Your task to perform on an android device: turn off translation in the chrome app Image 0: 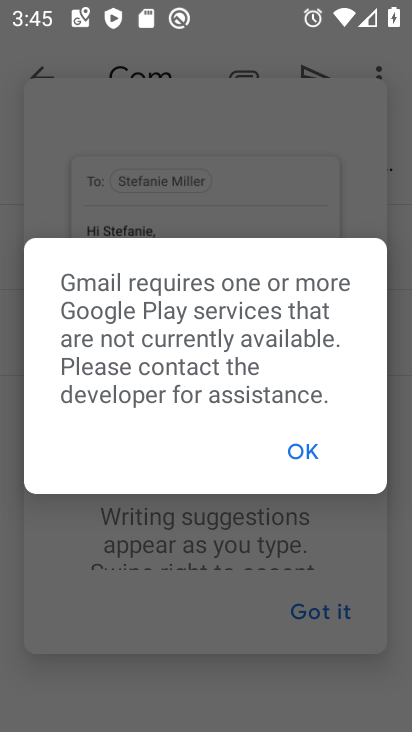
Step 0: press home button
Your task to perform on an android device: turn off translation in the chrome app Image 1: 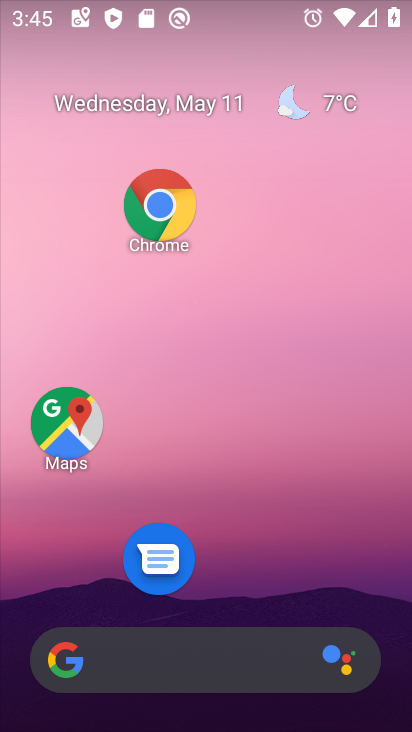
Step 1: click (169, 203)
Your task to perform on an android device: turn off translation in the chrome app Image 2: 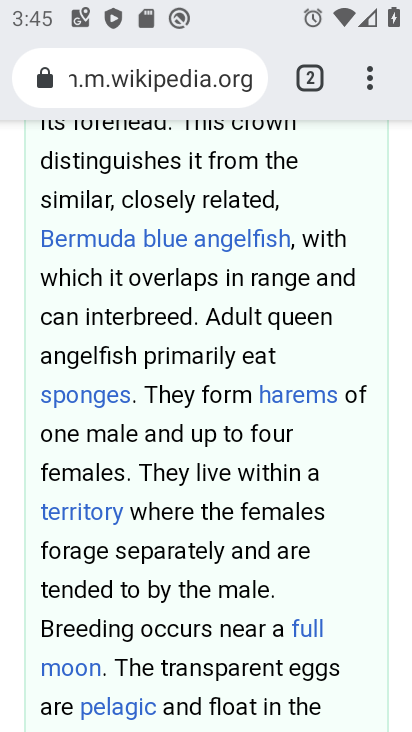
Step 2: click (375, 84)
Your task to perform on an android device: turn off translation in the chrome app Image 3: 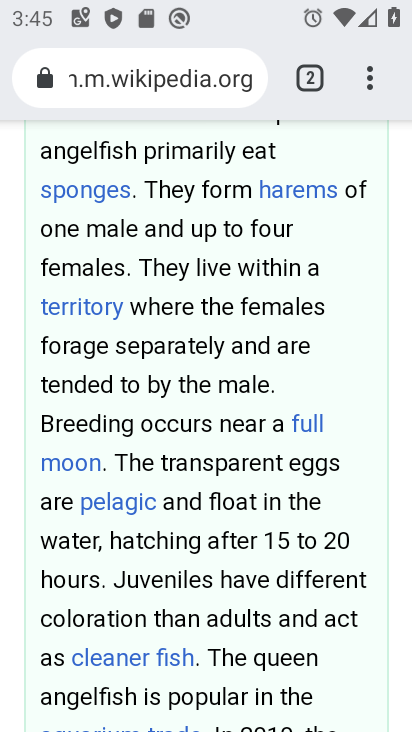
Step 3: click (370, 73)
Your task to perform on an android device: turn off translation in the chrome app Image 4: 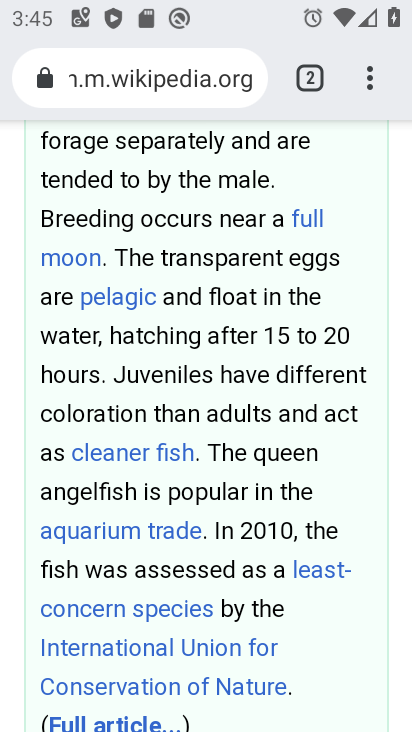
Step 4: click (370, 73)
Your task to perform on an android device: turn off translation in the chrome app Image 5: 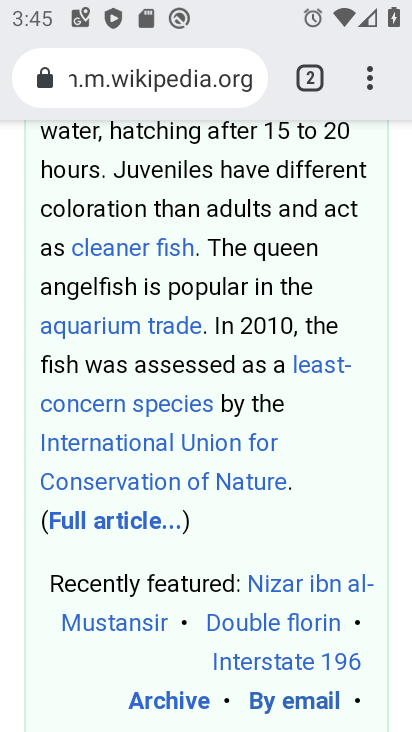
Step 5: click (370, 85)
Your task to perform on an android device: turn off translation in the chrome app Image 6: 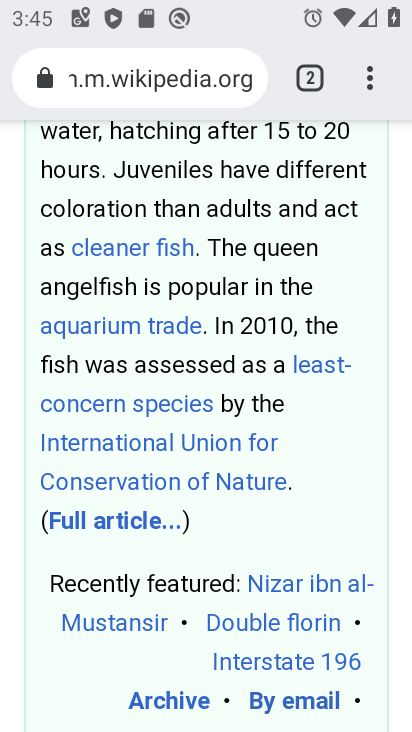
Step 6: click (370, 85)
Your task to perform on an android device: turn off translation in the chrome app Image 7: 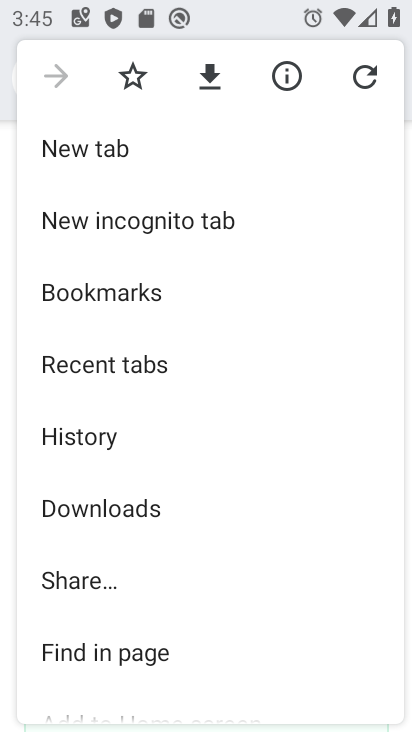
Step 7: drag from (183, 704) to (170, 328)
Your task to perform on an android device: turn off translation in the chrome app Image 8: 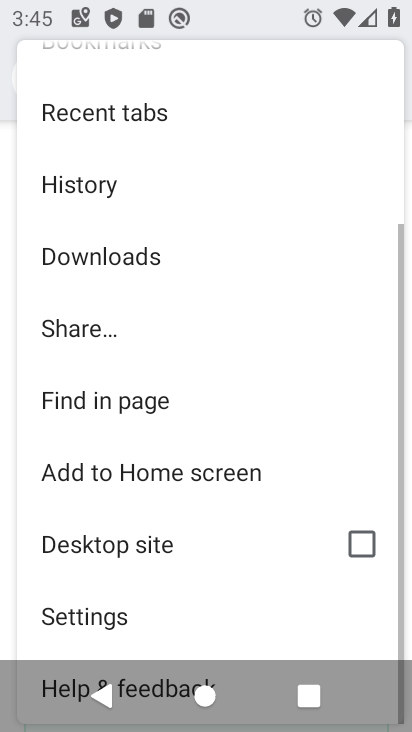
Step 8: click (81, 618)
Your task to perform on an android device: turn off translation in the chrome app Image 9: 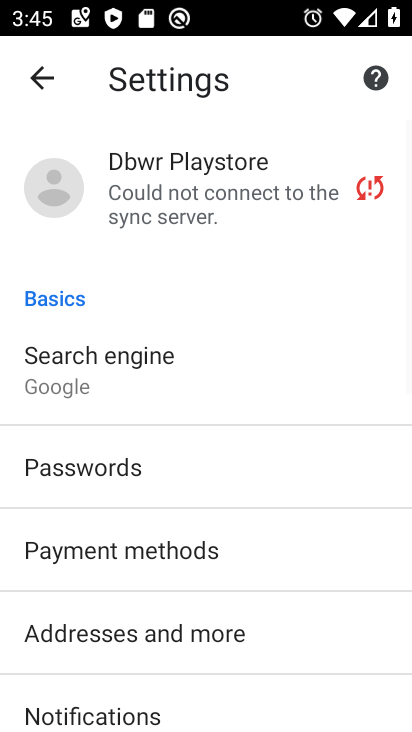
Step 9: drag from (103, 705) to (97, 322)
Your task to perform on an android device: turn off translation in the chrome app Image 10: 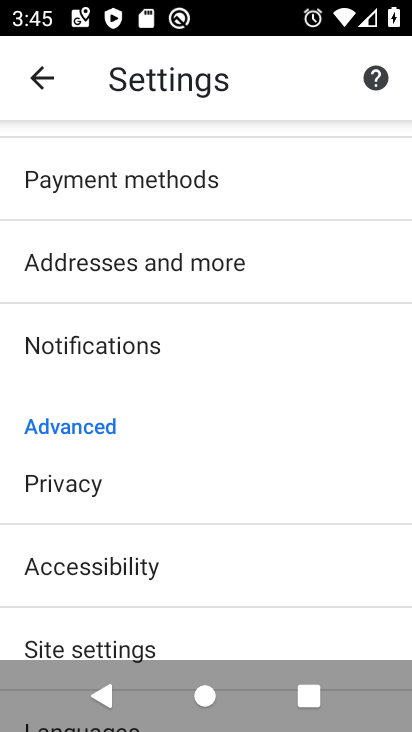
Step 10: drag from (76, 637) to (74, 304)
Your task to perform on an android device: turn off translation in the chrome app Image 11: 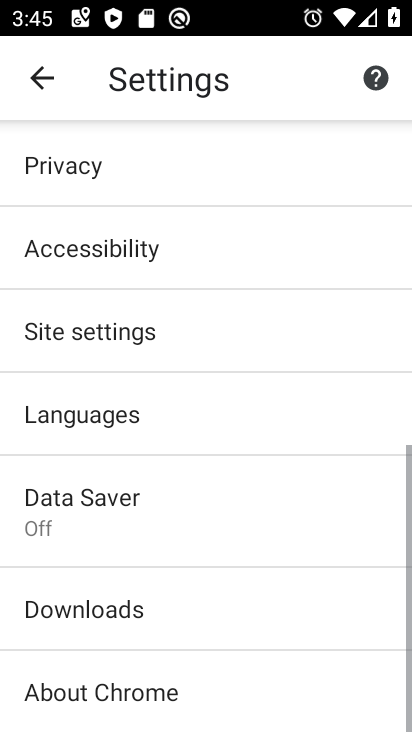
Step 11: click (57, 427)
Your task to perform on an android device: turn off translation in the chrome app Image 12: 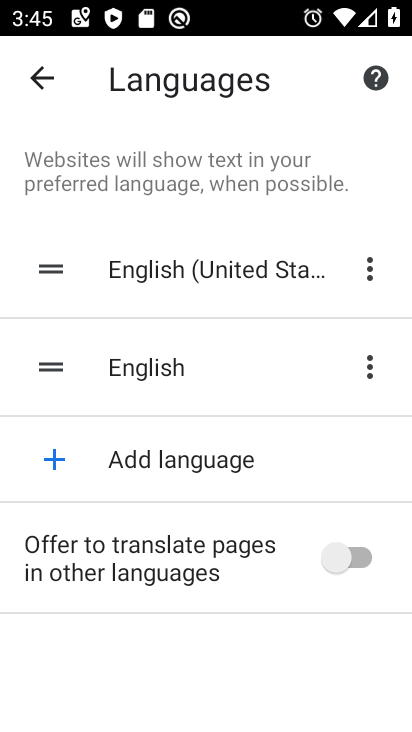
Step 12: task complete